Your task to perform on an android device: visit the assistant section in the google photos Image 0: 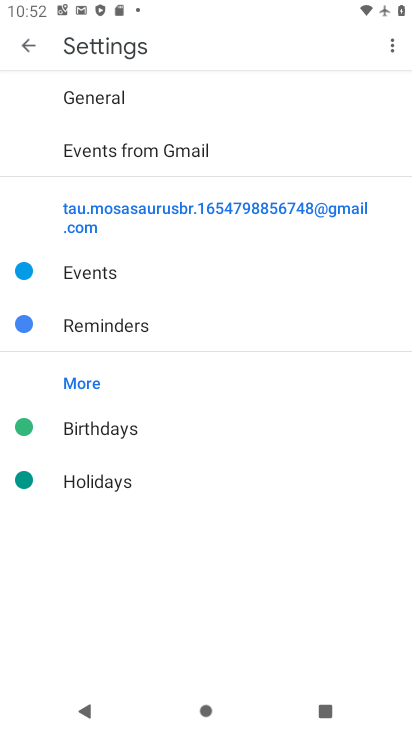
Step 0: press home button
Your task to perform on an android device: visit the assistant section in the google photos Image 1: 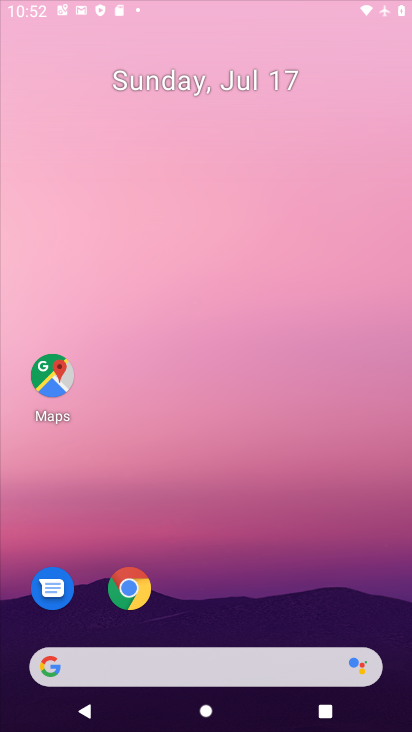
Step 1: drag from (308, 647) to (391, 149)
Your task to perform on an android device: visit the assistant section in the google photos Image 2: 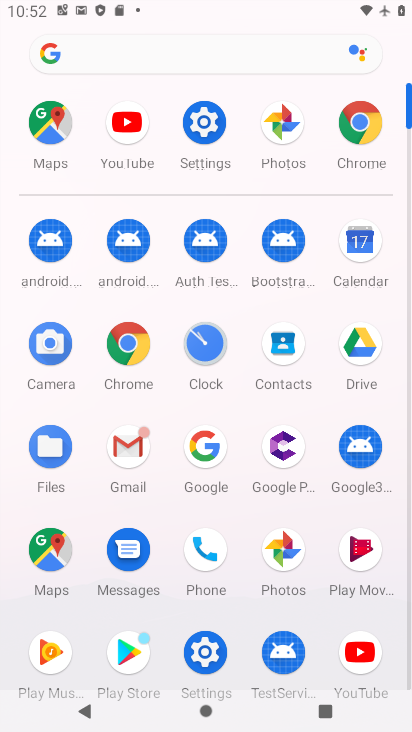
Step 2: click (275, 564)
Your task to perform on an android device: visit the assistant section in the google photos Image 3: 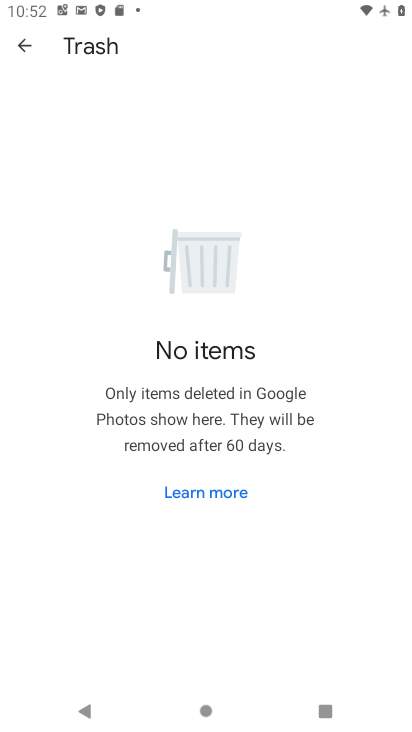
Step 3: click (33, 27)
Your task to perform on an android device: visit the assistant section in the google photos Image 4: 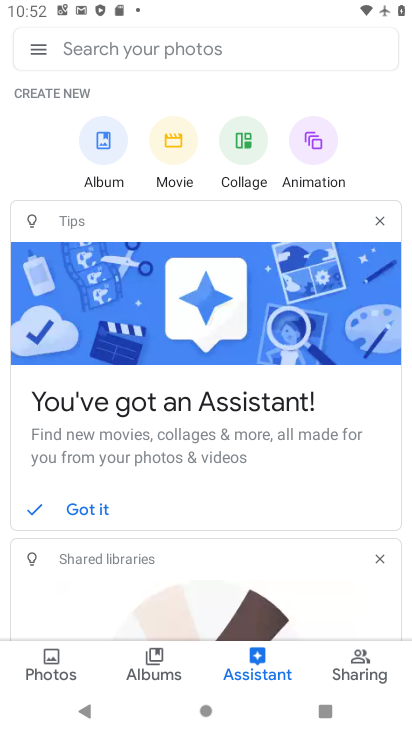
Step 4: click (252, 677)
Your task to perform on an android device: visit the assistant section in the google photos Image 5: 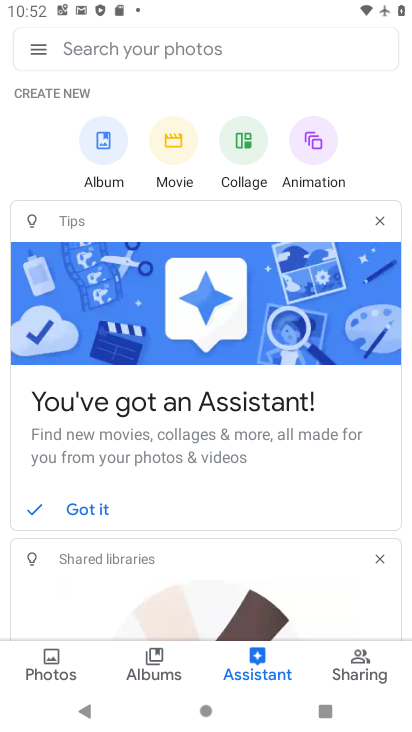
Step 5: task complete